Your task to perform on an android device: What's the weather going to be this weekend? Image 0: 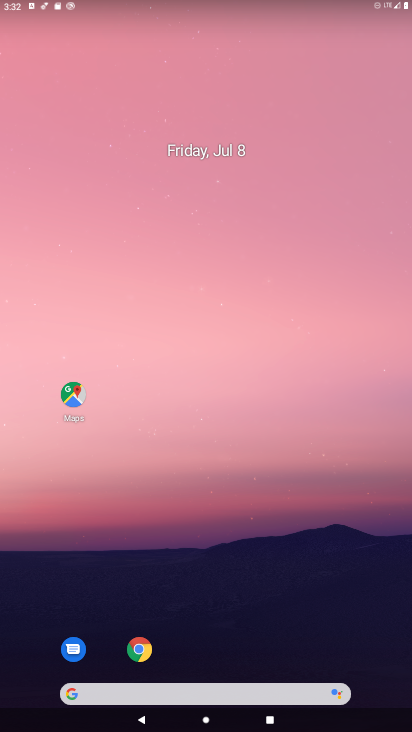
Step 0: drag from (3, 211) to (385, 214)
Your task to perform on an android device: What's the weather going to be this weekend? Image 1: 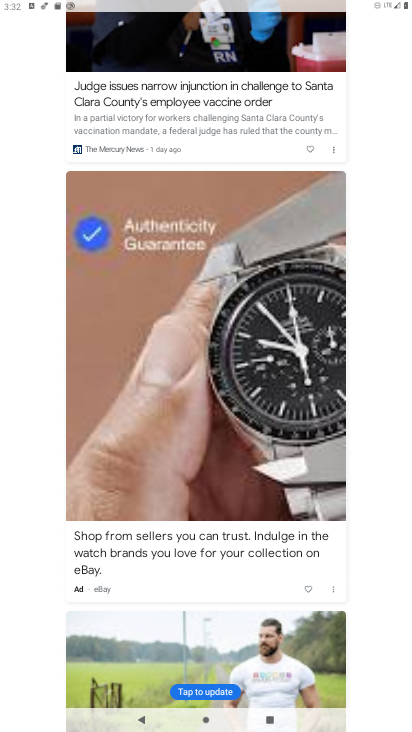
Step 1: drag from (262, 163) to (284, 517)
Your task to perform on an android device: What's the weather going to be this weekend? Image 2: 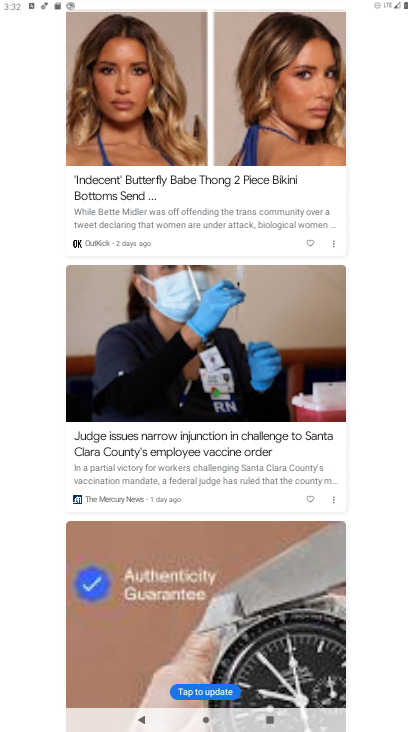
Step 2: drag from (271, 94) to (262, 589)
Your task to perform on an android device: What's the weather going to be this weekend? Image 3: 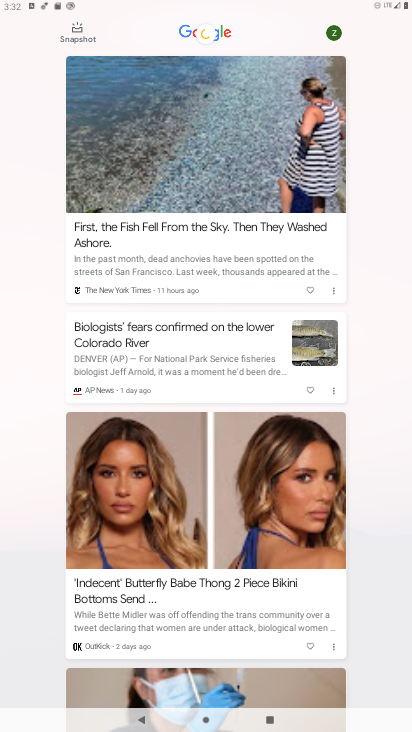
Step 3: drag from (406, 434) to (133, 449)
Your task to perform on an android device: What's the weather going to be this weekend? Image 4: 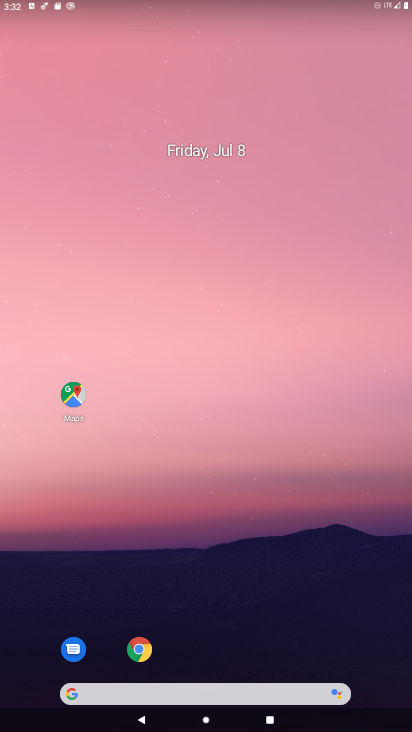
Step 4: click (164, 691)
Your task to perform on an android device: What's the weather going to be this weekend? Image 5: 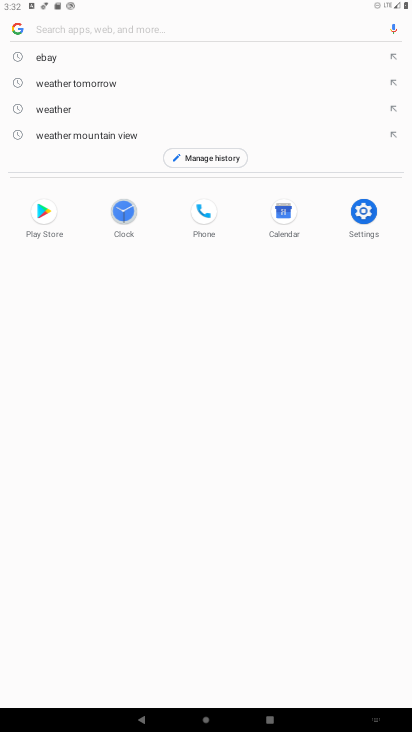
Step 5: click (46, 104)
Your task to perform on an android device: What's the weather going to be this weekend? Image 6: 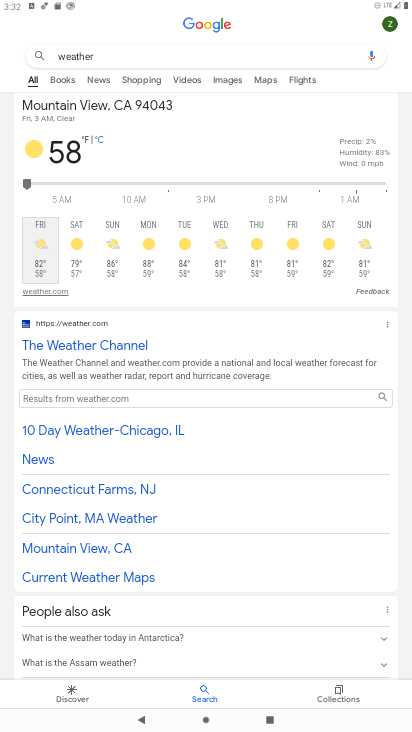
Step 6: task complete